Your task to perform on an android device: When is my next meeting? Image 0: 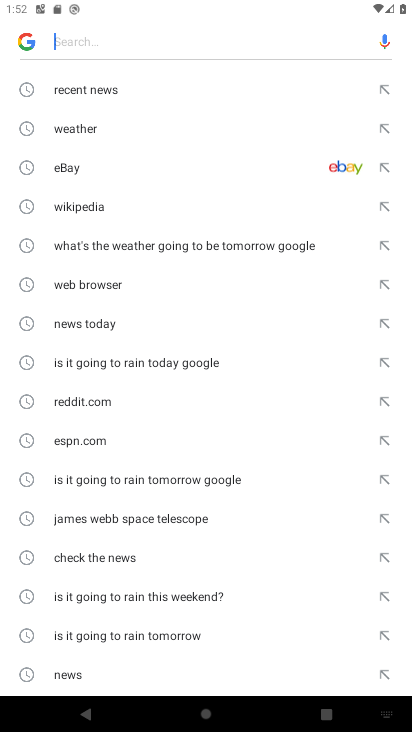
Step 0: press back button
Your task to perform on an android device: When is my next meeting? Image 1: 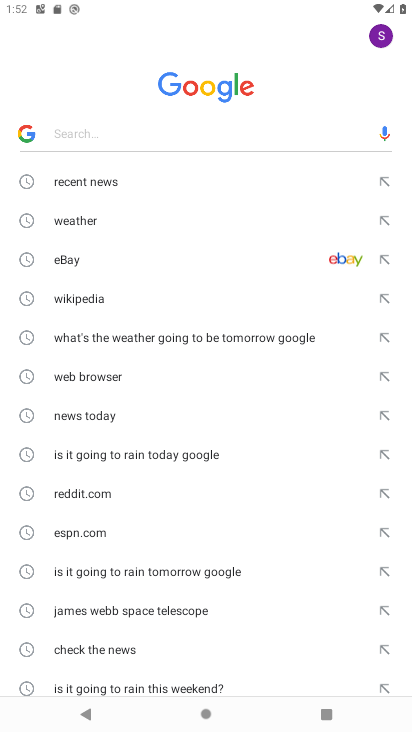
Step 1: task complete